Your task to perform on an android device: snooze an email in the gmail app Image 0: 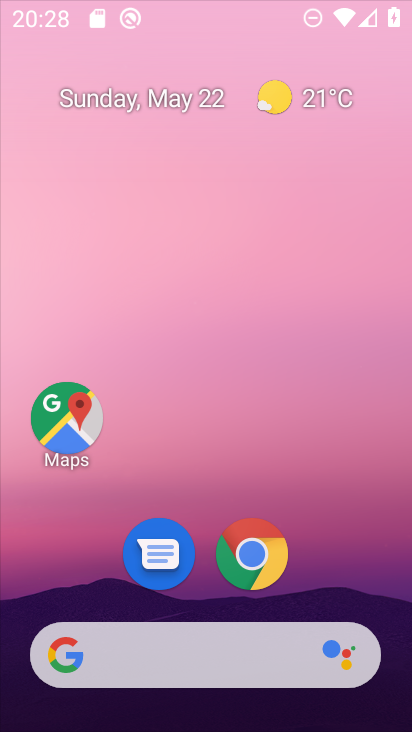
Step 0: press home button
Your task to perform on an android device: snooze an email in the gmail app Image 1: 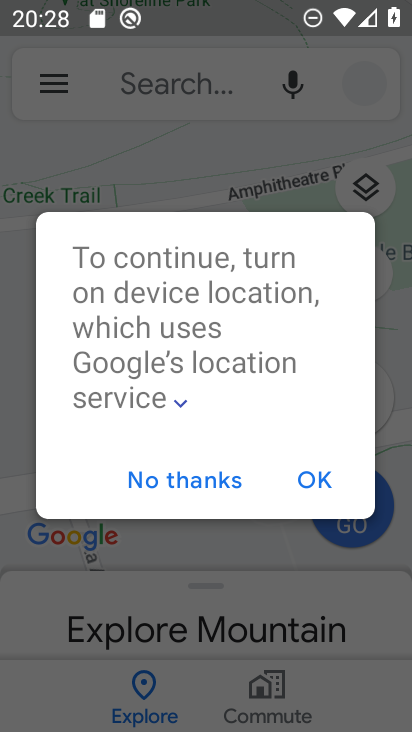
Step 1: press home button
Your task to perform on an android device: snooze an email in the gmail app Image 2: 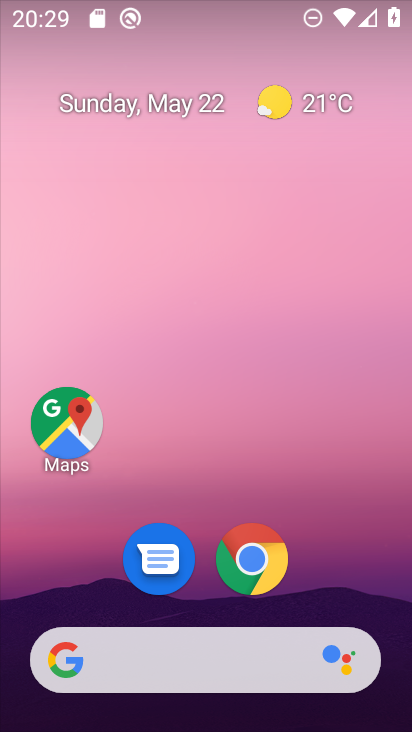
Step 2: drag from (278, 693) to (207, 272)
Your task to perform on an android device: snooze an email in the gmail app Image 3: 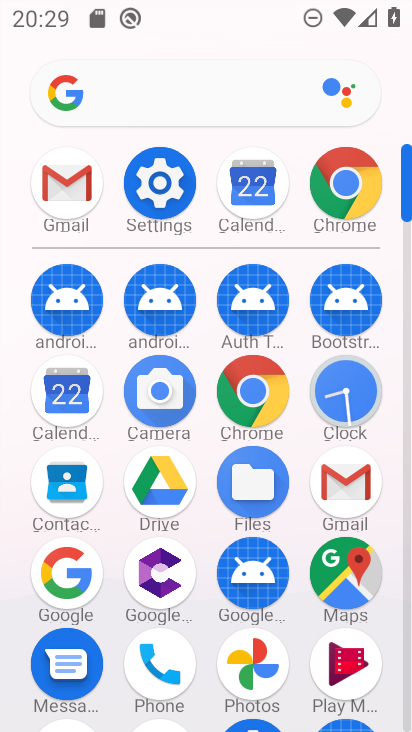
Step 3: click (76, 210)
Your task to perform on an android device: snooze an email in the gmail app Image 4: 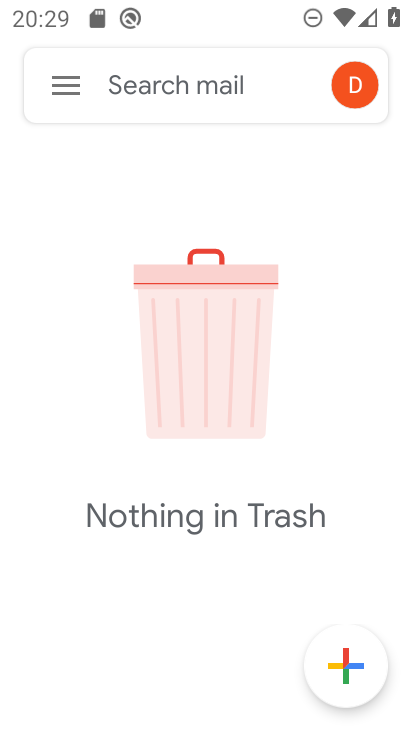
Step 4: click (53, 94)
Your task to perform on an android device: snooze an email in the gmail app Image 5: 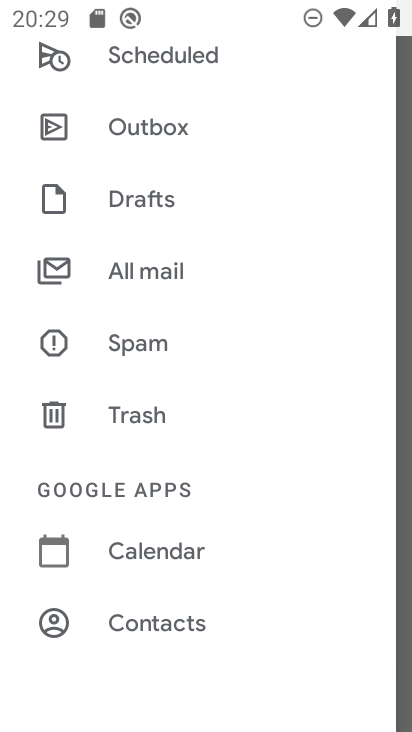
Step 5: drag from (116, 224) to (229, 422)
Your task to perform on an android device: snooze an email in the gmail app Image 6: 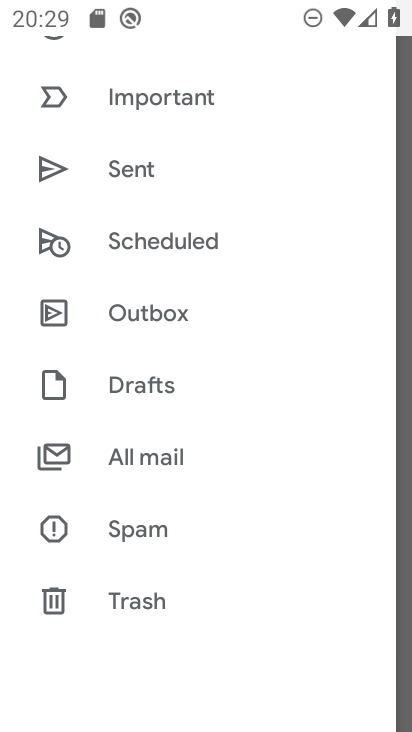
Step 6: drag from (178, 125) to (209, 212)
Your task to perform on an android device: snooze an email in the gmail app Image 7: 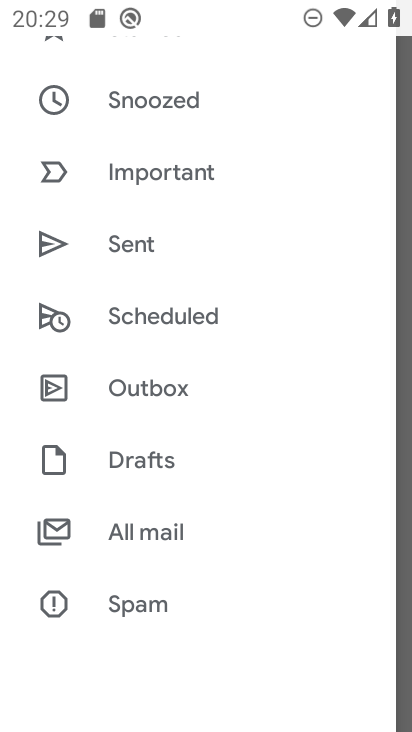
Step 7: click (160, 104)
Your task to perform on an android device: snooze an email in the gmail app Image 8: 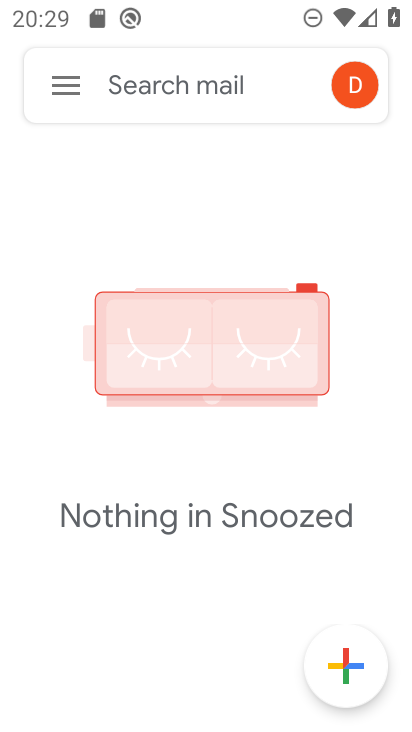
Step 8: task complete